Your task to perform on an android device: Clear the shopping cart on newegg. Add bose soundlink mini to the cart on newegg, then select checkout. Image 0: 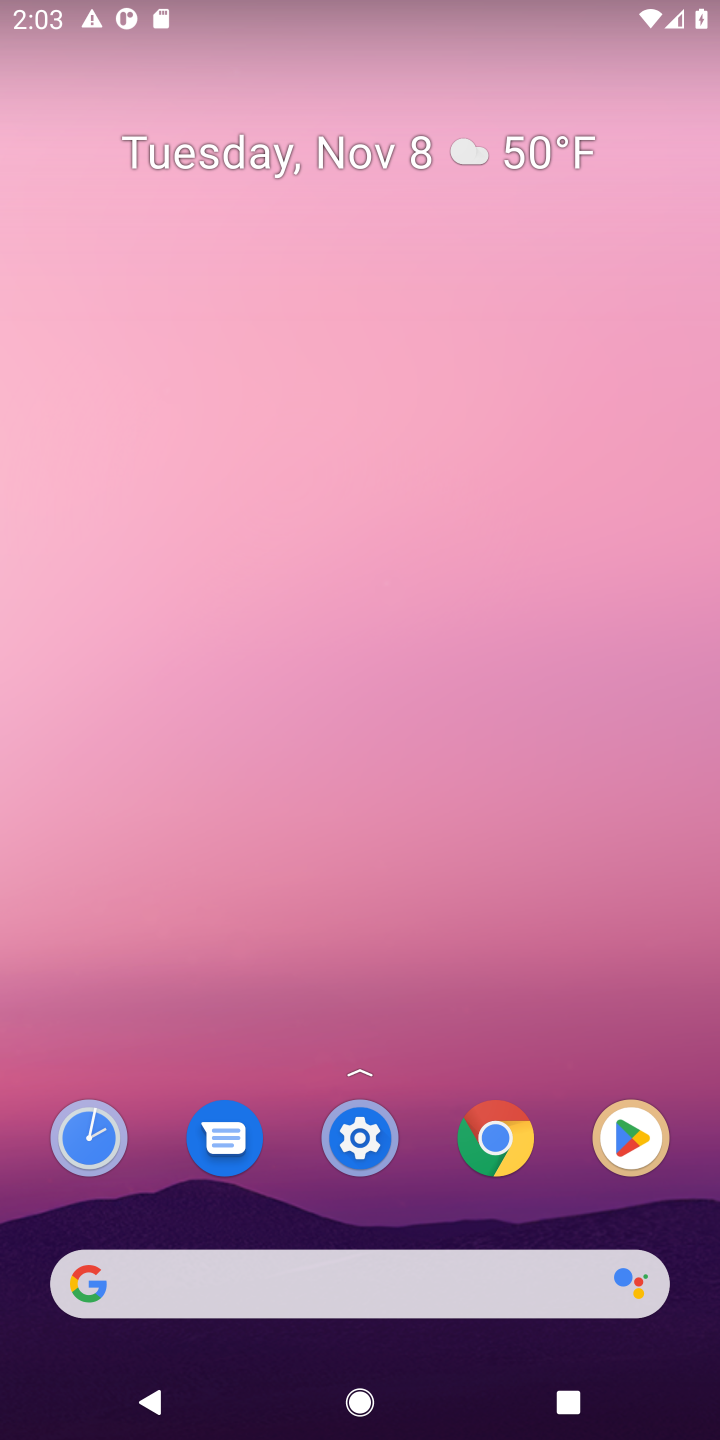
Step 0: click (259, 1267)
Your task to perform on an android device: Clear the shopping cart on newegg. Add bose soundlink mini to the cart on newegg, then select checkout. Image 1: 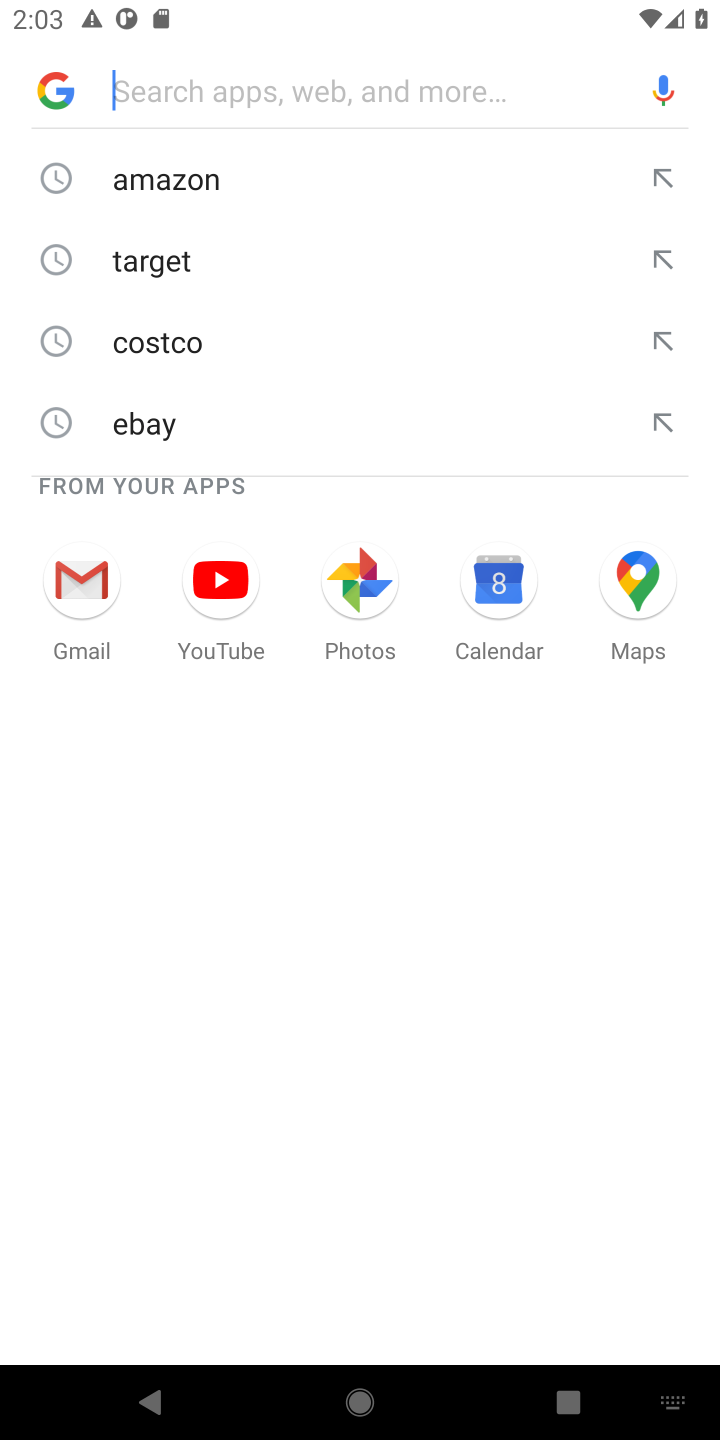
Step 1: type "newegg"
Your task to perform on an android device: Clear the shopping cart on newegg. Add bose soundlink mini to the cart on newegg, then select checkout. Image 2: 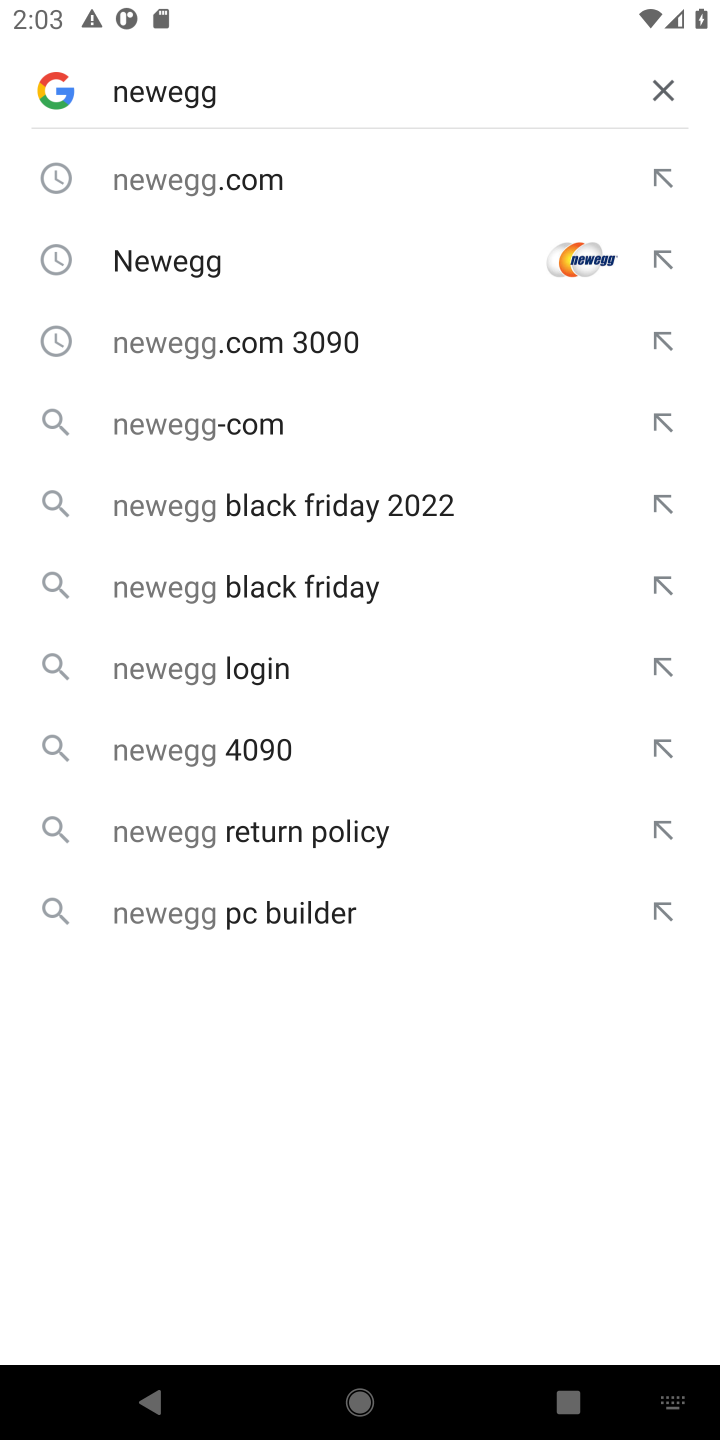
Step 2: click (304, 204)
Your task to perform on an android device: Clear the shopping cart on newegg. Add bose soundlink mini to the cart on newegg, then select checkout. Image 3: 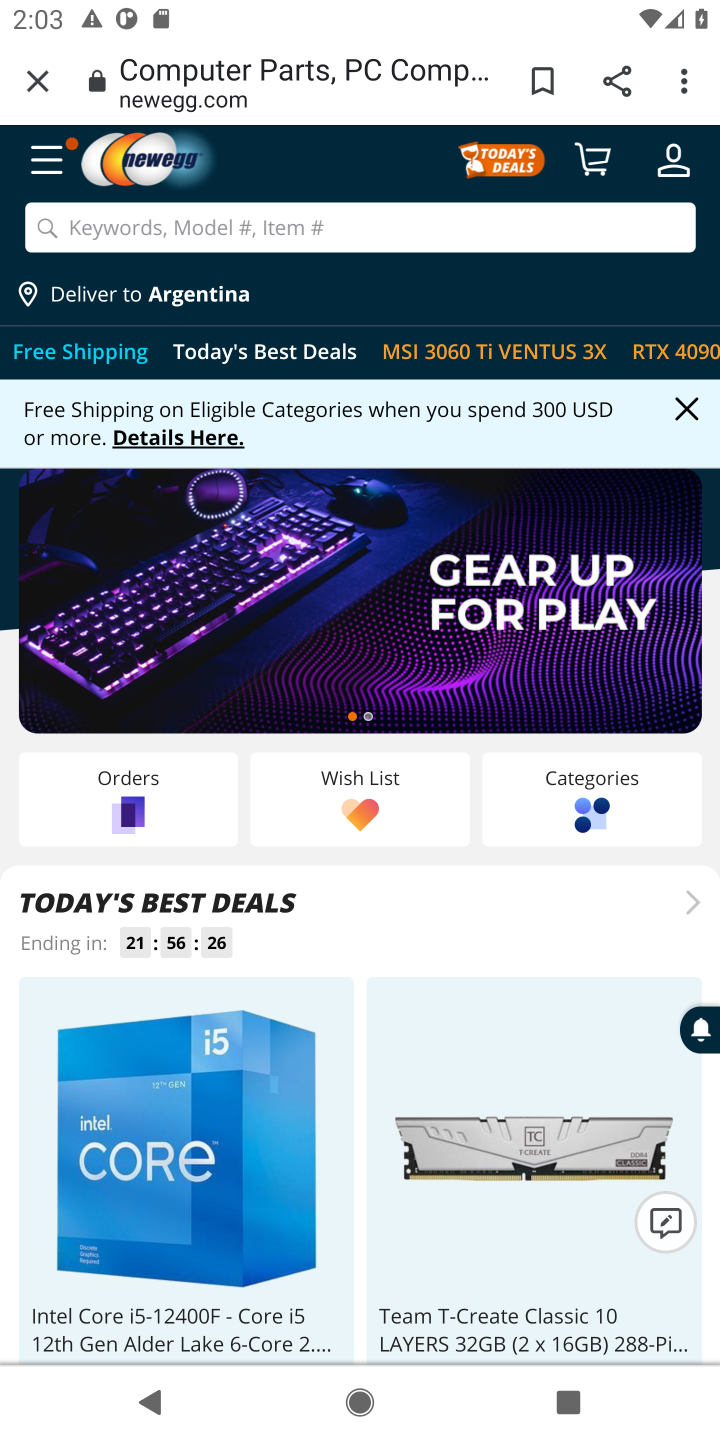
Step 3: task complete